Your task to perform on an android device: move a message to another label in the gmail app Image 0: 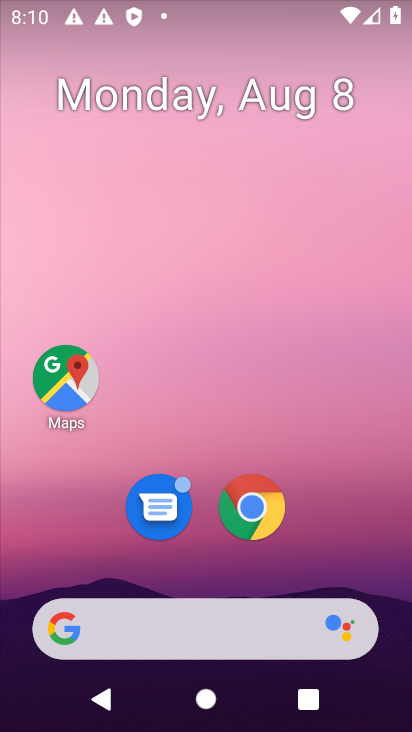
Step 0: drag from (178, 598) to (313, 9)
Your task to perform on an android device: move a message to another label in the gmail app Image 1: 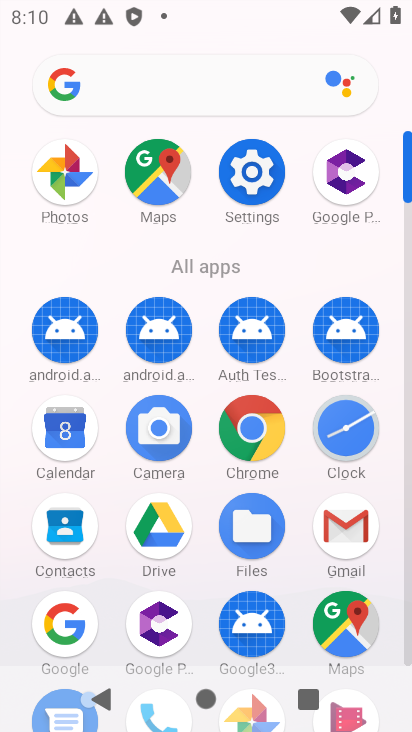
Step 1: click (346, 553)
Your task to perform on an android device: move a message to another label in the gmail app Image 2: 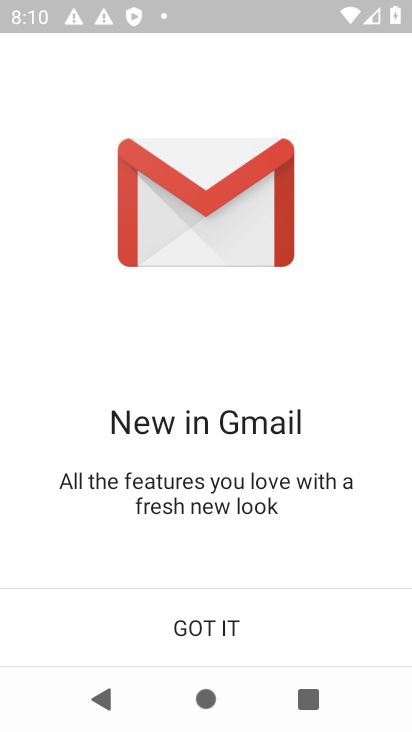
Step 2: click (285, 628)
Your task to perform on an android device: move a message to another label in the gmail app Image 3: 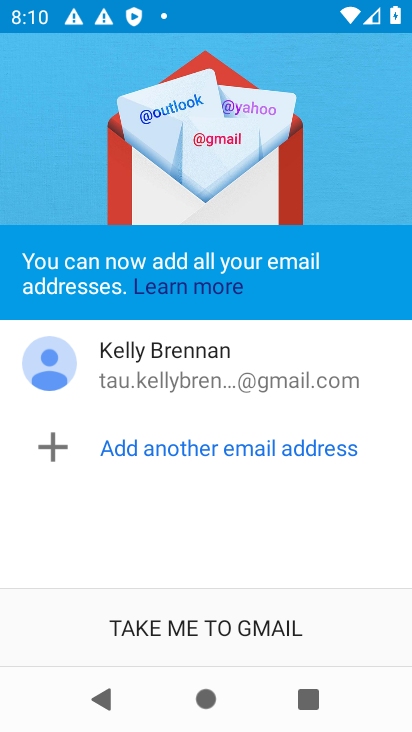
Step 3: click (281, 628)
Your task to perform on an android device: move a message to another label in the gmail app Image 4: 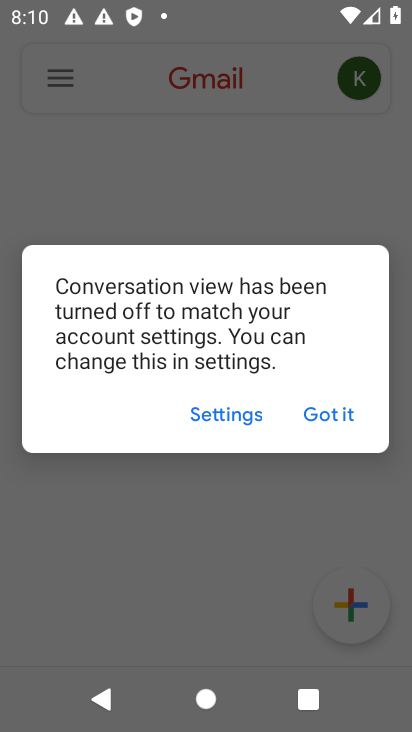
Step 4: click (325, 421)
Your task to perform on an android device: move a message to another label in the gmail app Image 5: 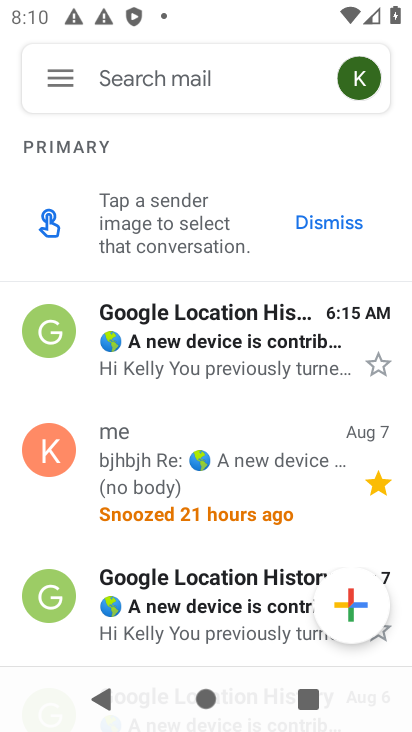
Step 5: click (185, 329)
Your task to perform on an android device: move a message to another label in the gmail app Image 6: 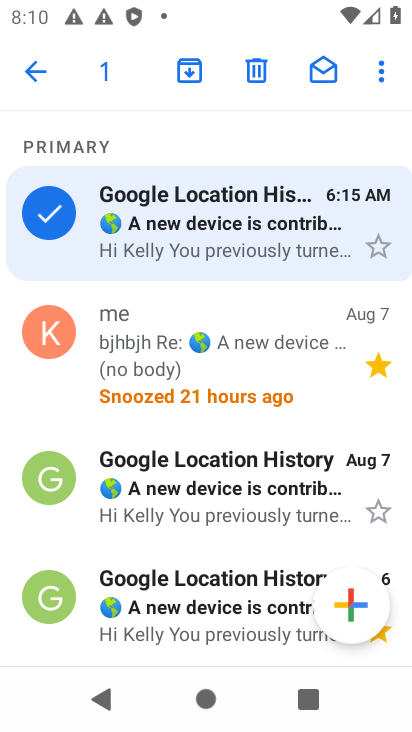
Step 6: click (383, 68)
Your task to perform on an android device: move a message to another label in the gmail app Image 7: 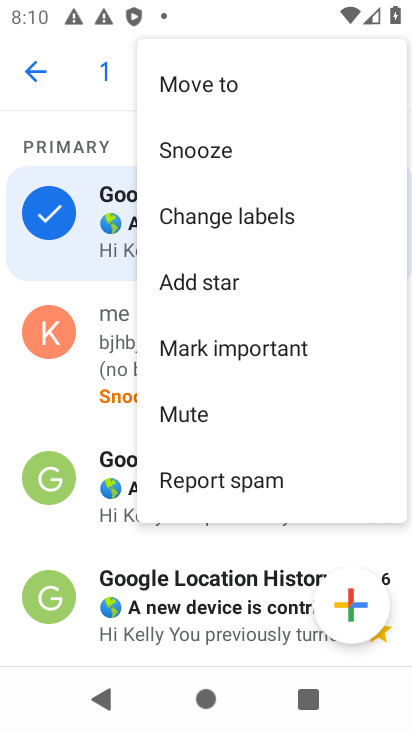
Step 7: click (215, 90)
Your task to perform on an android device: move a message to another label in the gmail app Image 8: 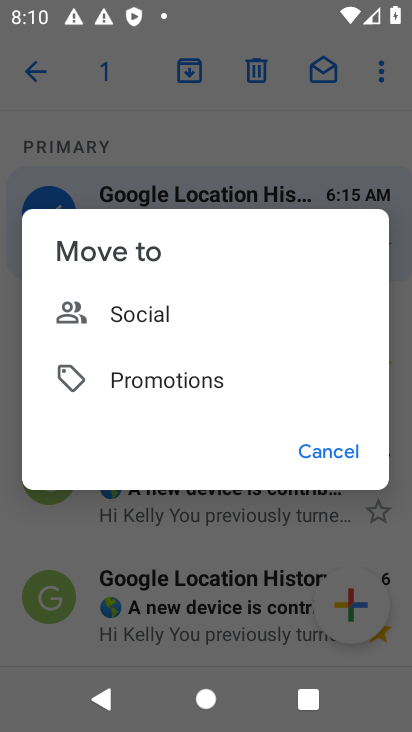
Step 8: click (173, 305)
Your task to perform on an android device: move a message to another label in the gmail app Image 9: 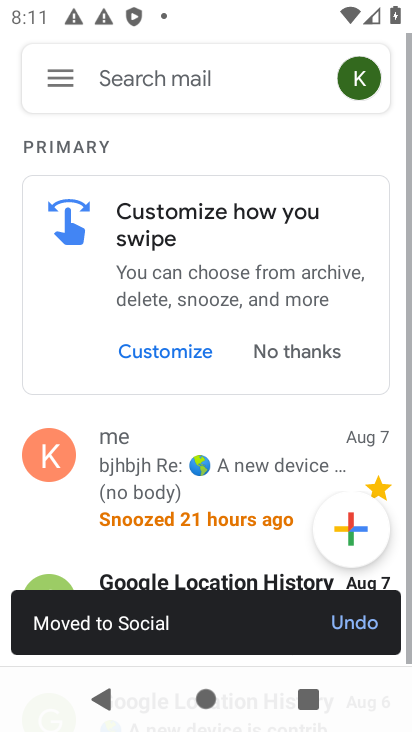
Step 9: task complete